Your task to perform on an android device: search for console tables on article.com Image 0: 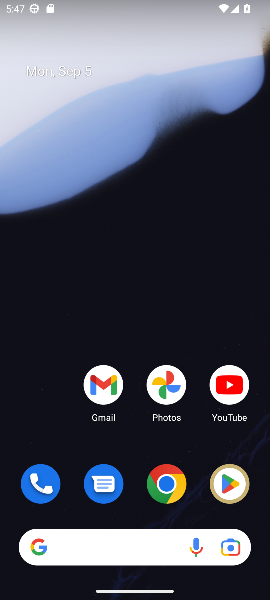
Step 0: click (164, 481)
Your task to perform on an android device: search for console tables on article.com Image 1: 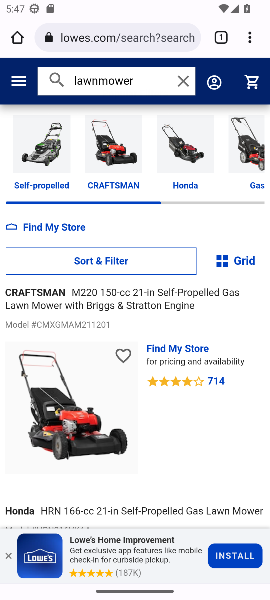
Step 1: click (151, 29)
Your task to perform on an android device: search for console tables on article.com Image 2: 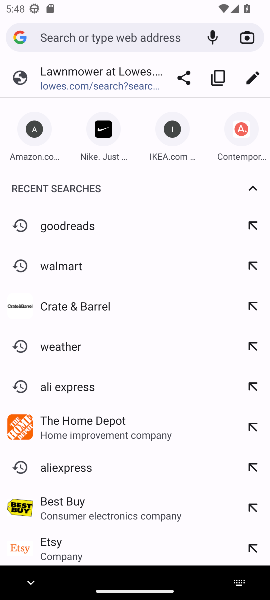
Step 2: type "article.com"
Your task to perform on an android device: search for console tables on article.com Image 3: 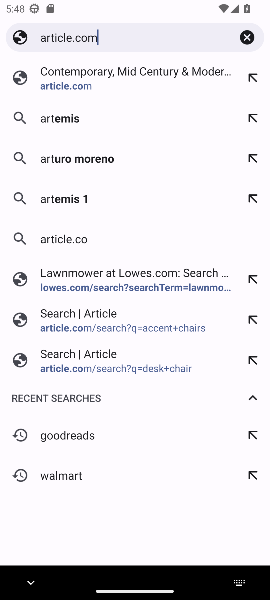
Step 3: press enter
Your task to perform on an android device: search for console tables on article.com Image 4: 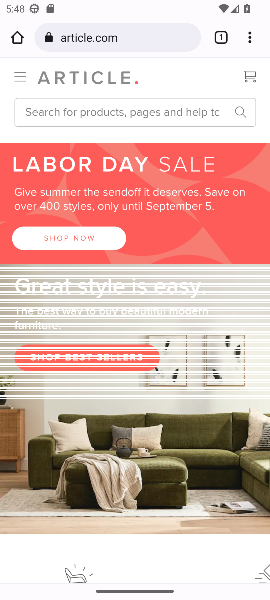
Step 4: click (152, 103)
Your task to perform on an android device: search for console tables on article.com Image 5: 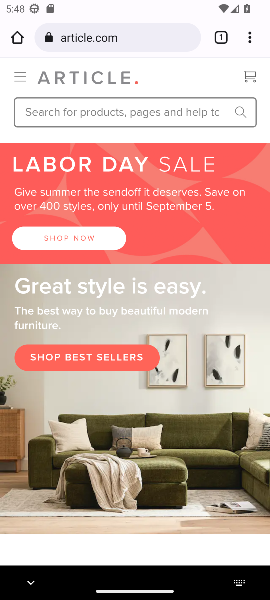
Step 5: press enter
Your task to perform on an android device: search for console tables on article.com Image 6: 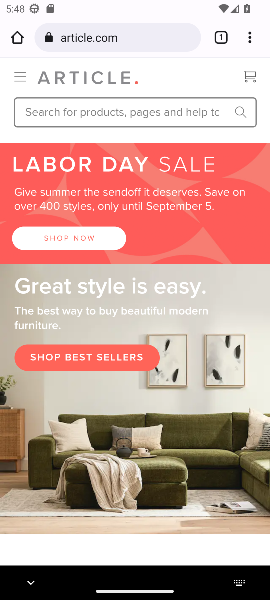
Step 6: type "console tables "
Your task to perform on an android device: search for console tables on article.com Image 7: 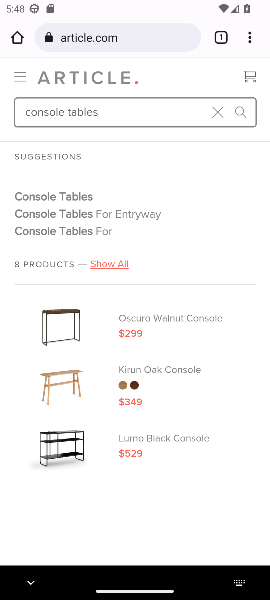
Step 7: task complete